Your task to perform on an android device: toggle notification dots Image 0: 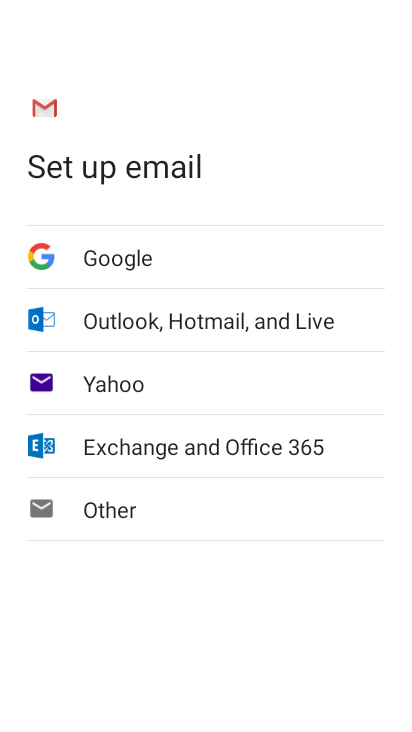
Step 0: press back button
Your task to perform on an android device: toggle notification dots Image 1: 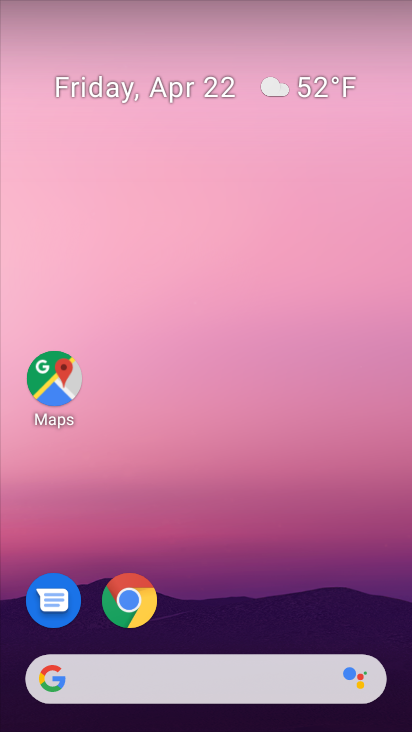
Step 1: drag from (254, 545) to (236, 37)
Your task to perform on an android device: toggle notification dots Image 2: 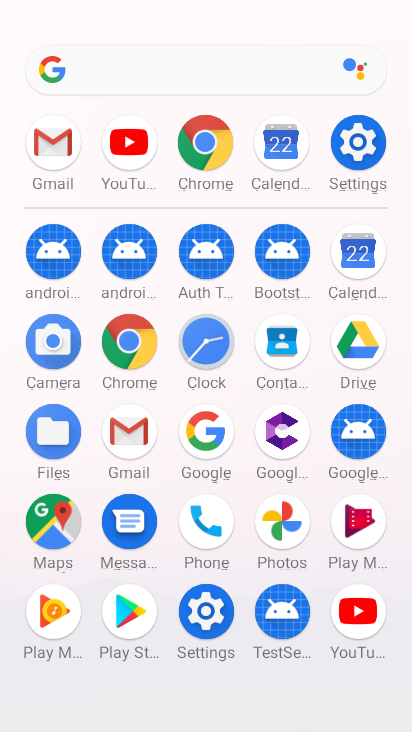
Step 2: drag from (18, 482) to (27, 215)
Your task to perform on an android device: toggle notification dots Image 3: 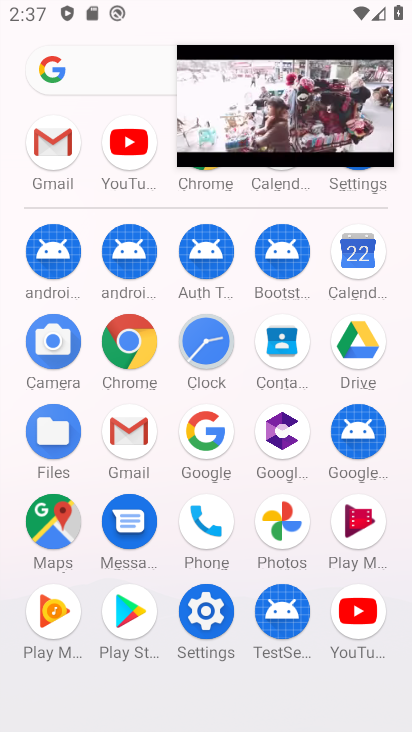
Step 3: click (378, 59)
Your task to perform on an android device: toggle notification dots Image 4: 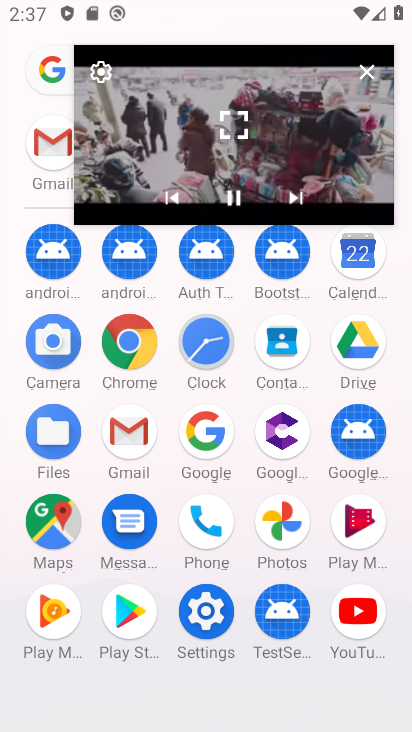
Step 4: click (365, 72)
Your task to perform on an android device: toggle notification dots Image 5: 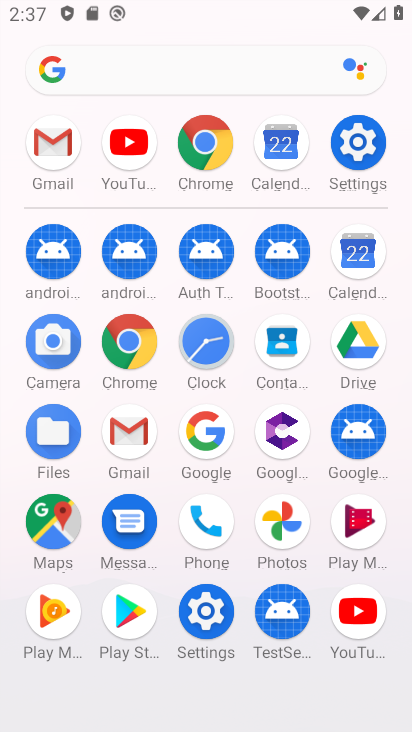
Step 5: click (206, 614)
Your task to perform on an android device: toggle notification dots Image 6: 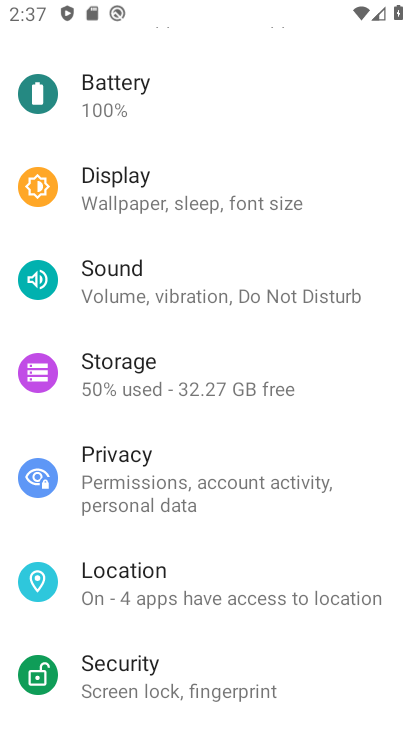
Step 6: drag from (239, 152) to (245, 511)
Your task to perform on an android device: toggle notification dots Image 7: 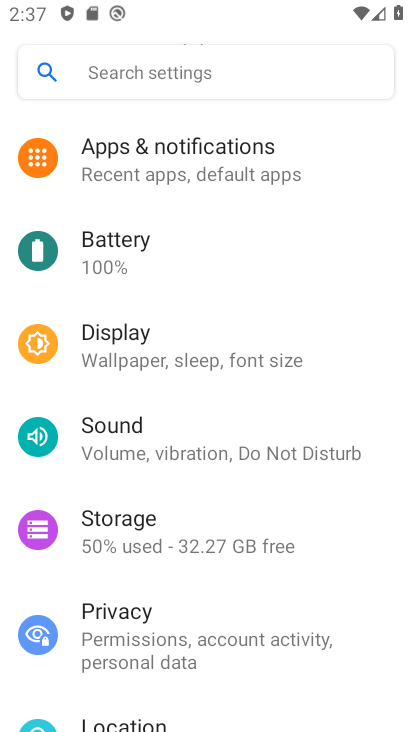
Step 7: click (226, 167)
Your task to perform on an android device: toggle notification dots Image 8: 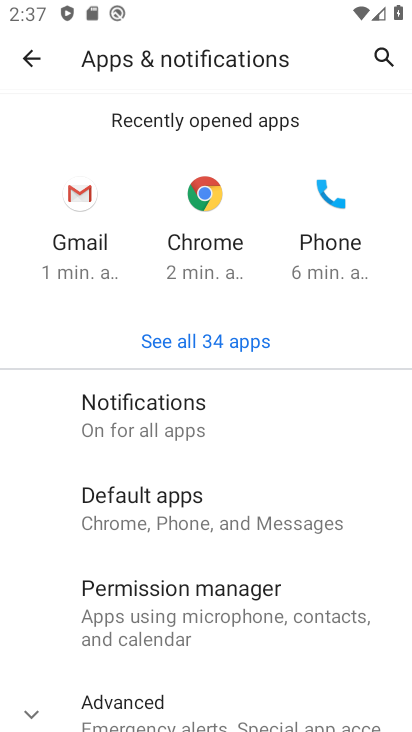
Step 8: click (240, 408)
Your task to perform on an android device: toggle notification dots Image 9: 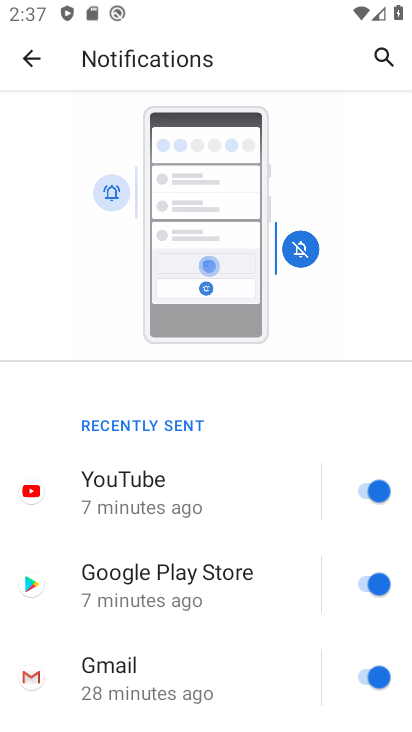
Step 9: drag from (244, 562) to (300, 182)
Your task to perform on an android device: toggle notification dots Image 10: 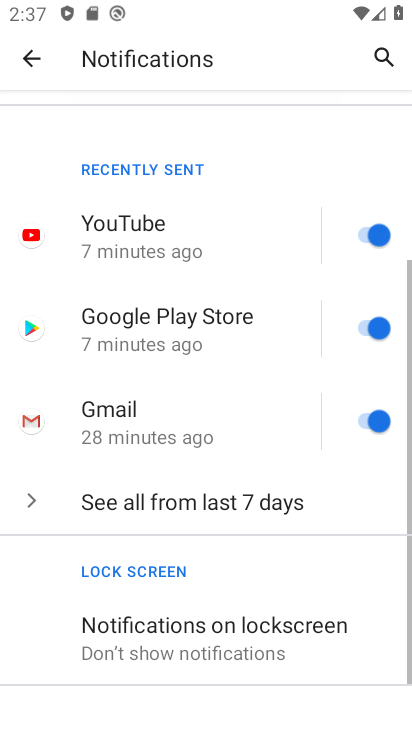
Step 10: drag from (217, 637) to (260, 196)
Your task to perform on an android device: toggle notification dots Image 11: 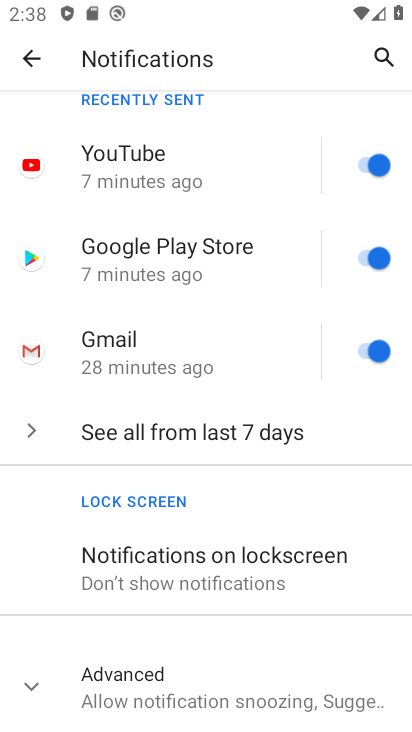
Step 11: drag from (230, 668) to (287, 274)
Your task to perform on an android device: toggle notification dots Image 12: 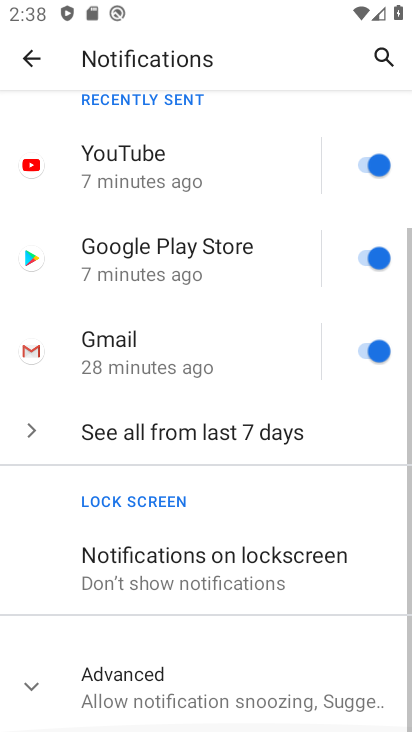
Step 12: click (44, 658)
Your task to perform on an android device: toggle notification dots Image 13: 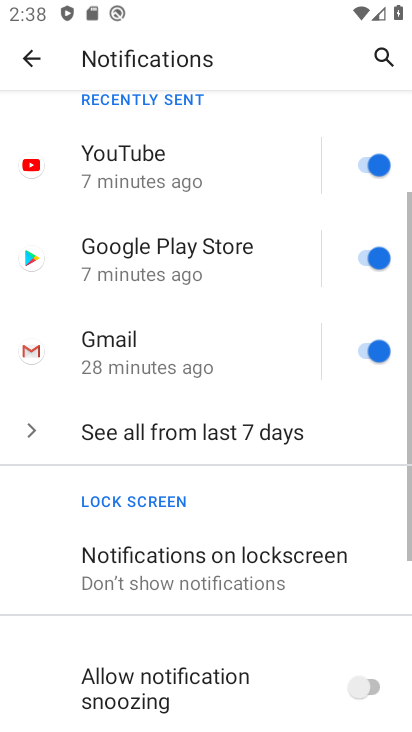
Step 13: drag from (283, 582) to (320, 110)
Your task to perform on an android device: toggle notification dots Image 14: 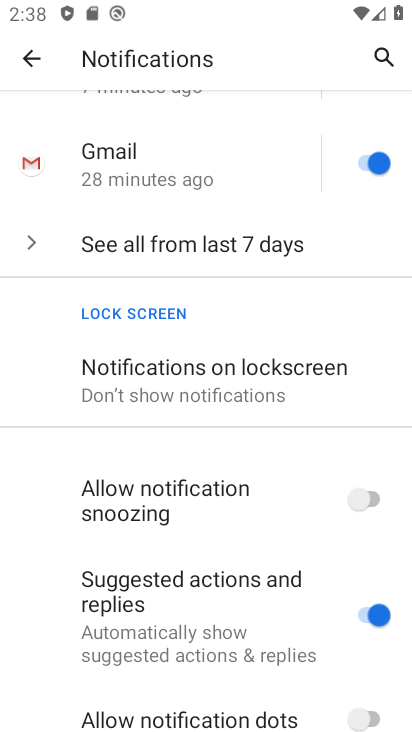
Step 14: drag from (203, 697) to (248, 239)
Your task to perform on an android device: toggle notification dots Image 15: 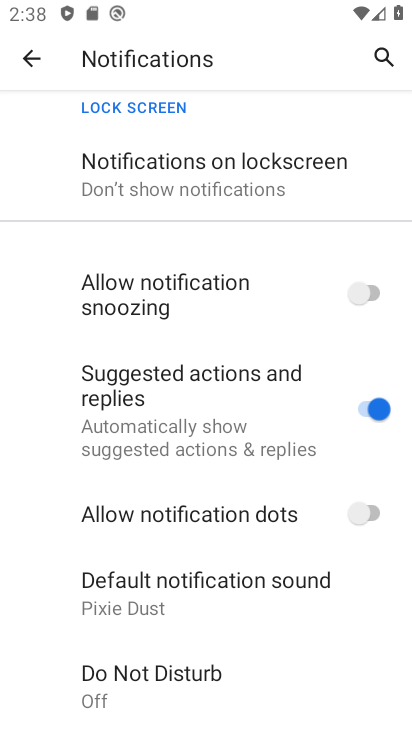
Step 15: click (375, 503)
Your task to perform on an android device: toggle notification dots Image 16: 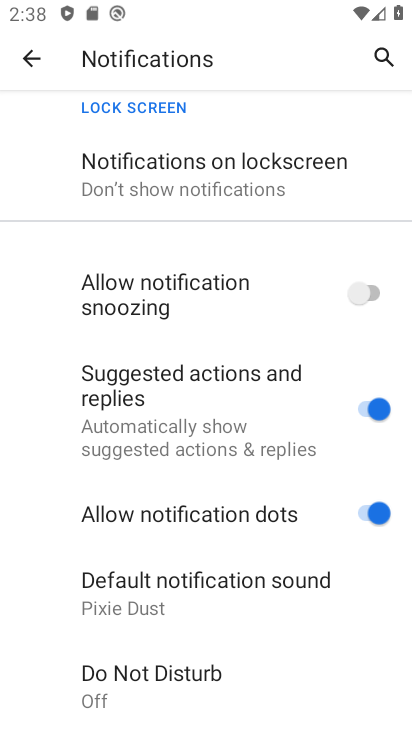
Step 16: drag from (211, 508) to (242, 217)
Your task to perform on an android device: toggle notification dots Image 17: 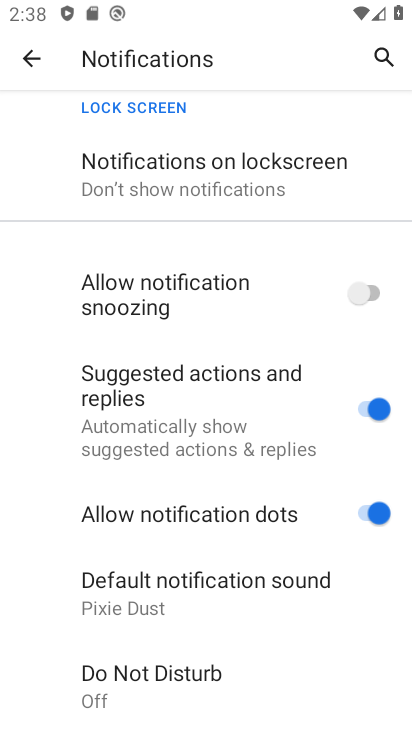
Step 17: drag from (211, 506) to (255, 148)
Your task to perform on an android device: toggle notification dots Image 18: 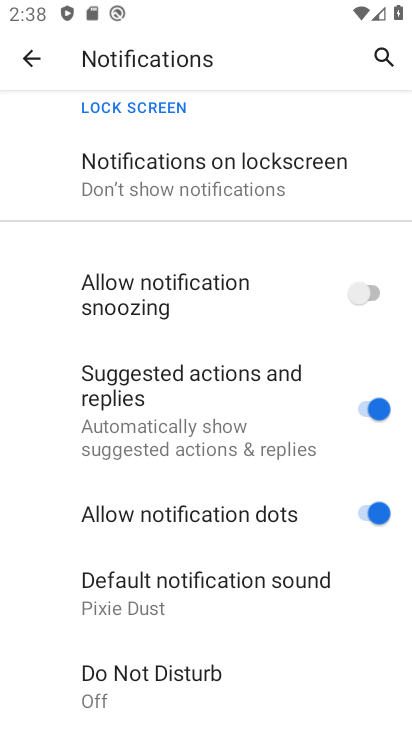
Step 18: click (383, 518)
Your task to perform on an android device: toggle notification dots Image 19: 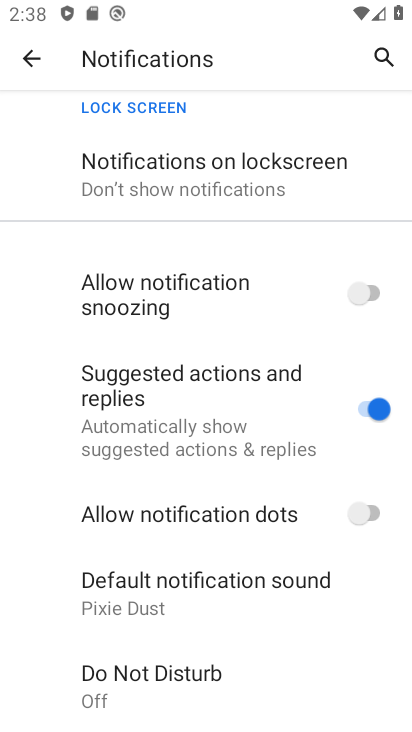
Step 19: task complete